Your task to perform on an android device: star an email in the gmail app Image 0: 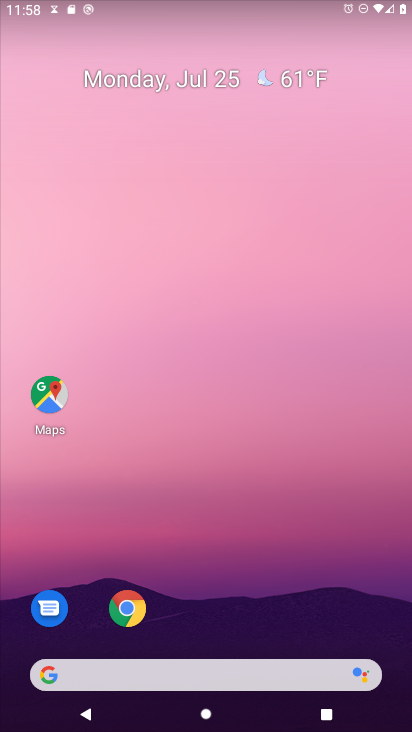
Step 0: drag from (192, 668) to (180, 109)
Your task to perform on an android device: star an email in the gmail app Image 1: 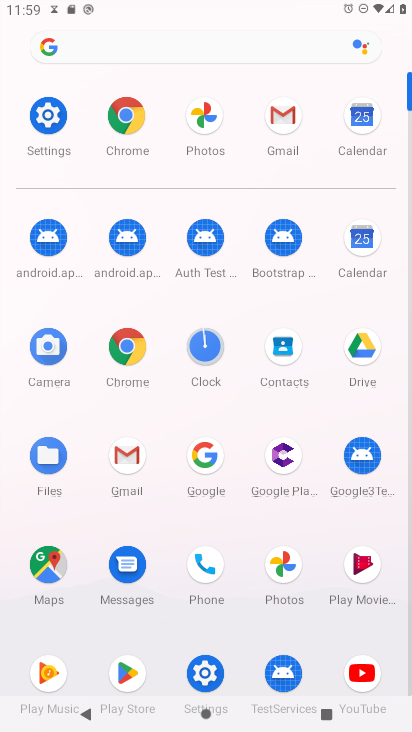
Step 1: click (282, 113)
Your task to perform on an android device: star an email in the gmail app Image 2: 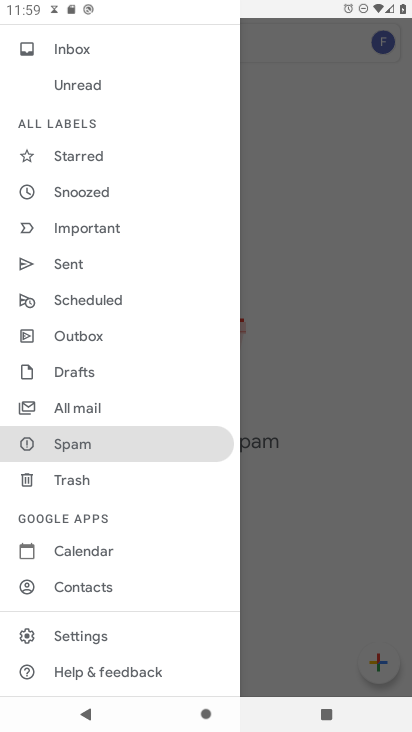
Step 2: click (89, 398)
Your task to perform on an android device: star an email in the gmail app Image 3: 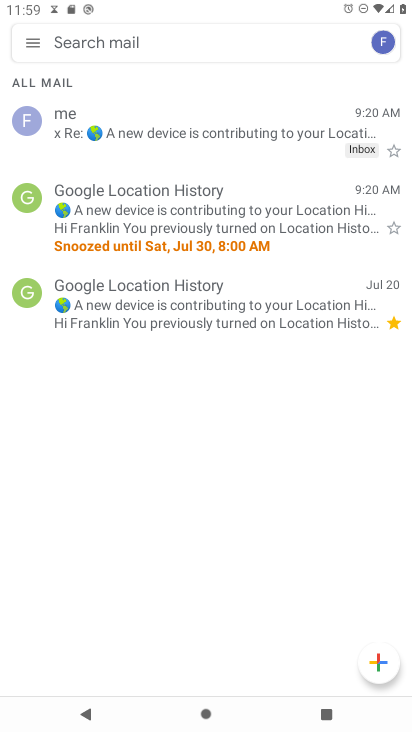
Step 3: click (399, 146)
Your task to perform on an android device: star an email in the gmail app Image 4: 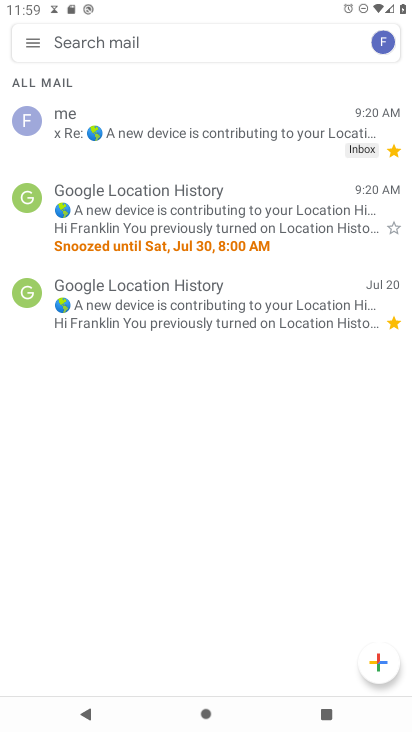
Step 4: task complete